Your task to perform on an android device: add a label to a message in the gmail app Image 0: 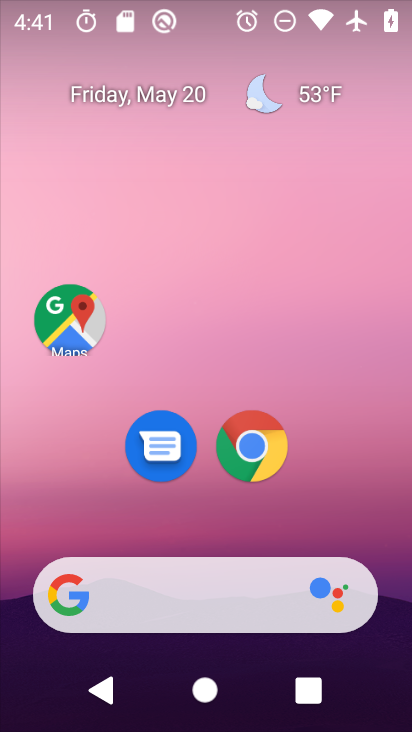
Step 0: drag from (366, 515) to (382, 80)
Your task to perform on an android device: add a label to a message in the gmail app Image 1: 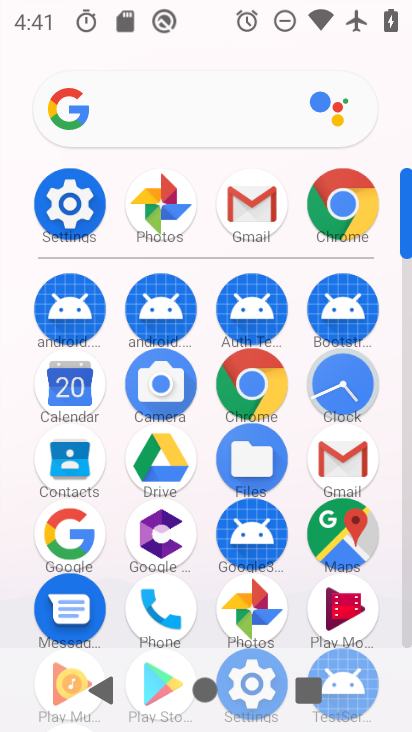
Step 1: click (238, 208)
Your task to perform on an android device: add a label to a message in the gmail app Image 2: 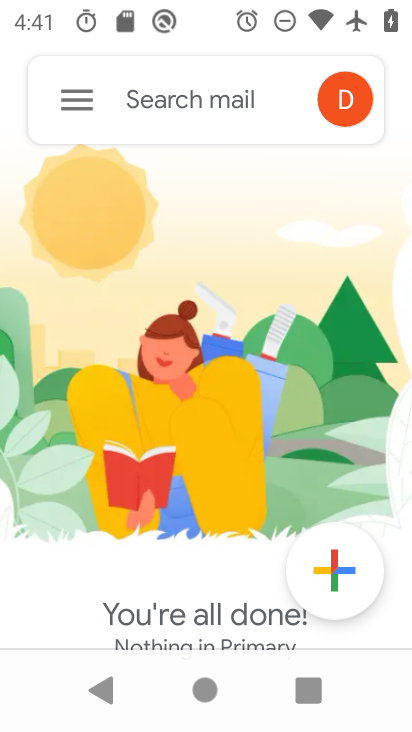
Step 2: click (84, 112)
Your task to perform on an android device: add a label to a message in the gmail app Image 3: 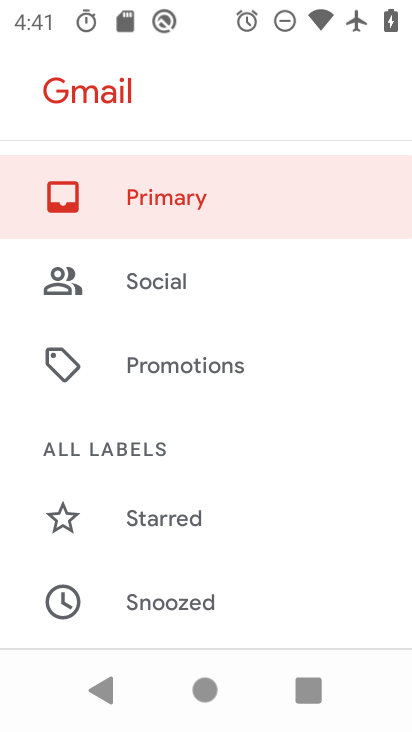
Step 3: drag from (150, 574) to (186, 155)
Your task to perform on an android device: add a label to a message in the gmail app Image 4: 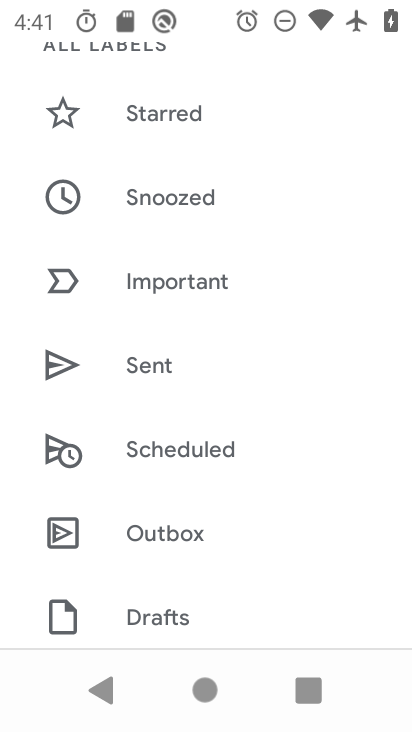
Step 4: drag from (188, 594) to (160, 166)
Your task to perform on an android device: add a label to a message in the gmail app Image 5: 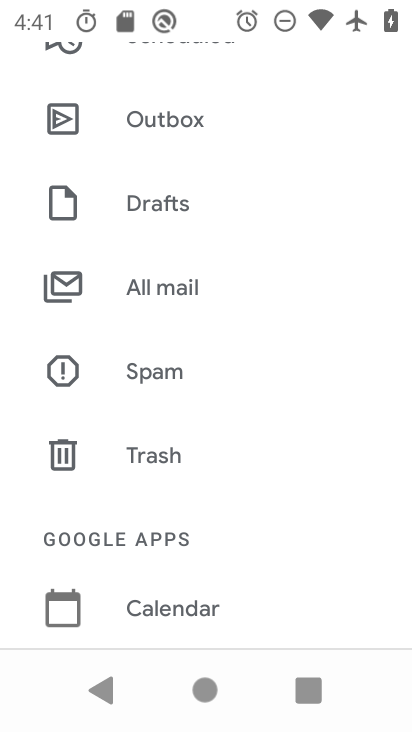
Step 5: click (177, 293)
Your task to perform on an android device: add a label to a message in the gmail app Image 6: 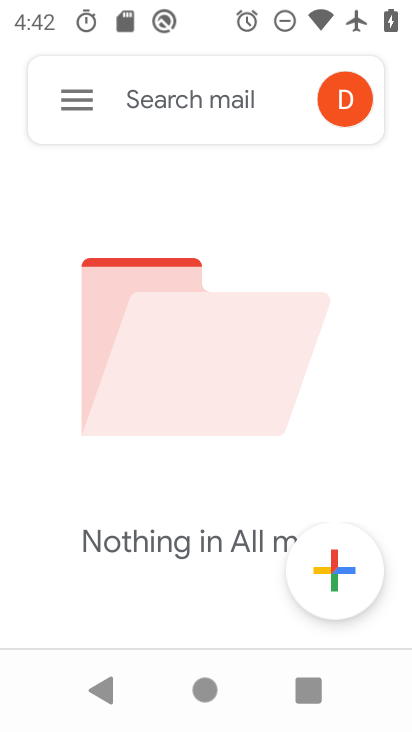
Step 6: task complete